Your task to perform on an android device: delete a single message in the gmail app Image 0: 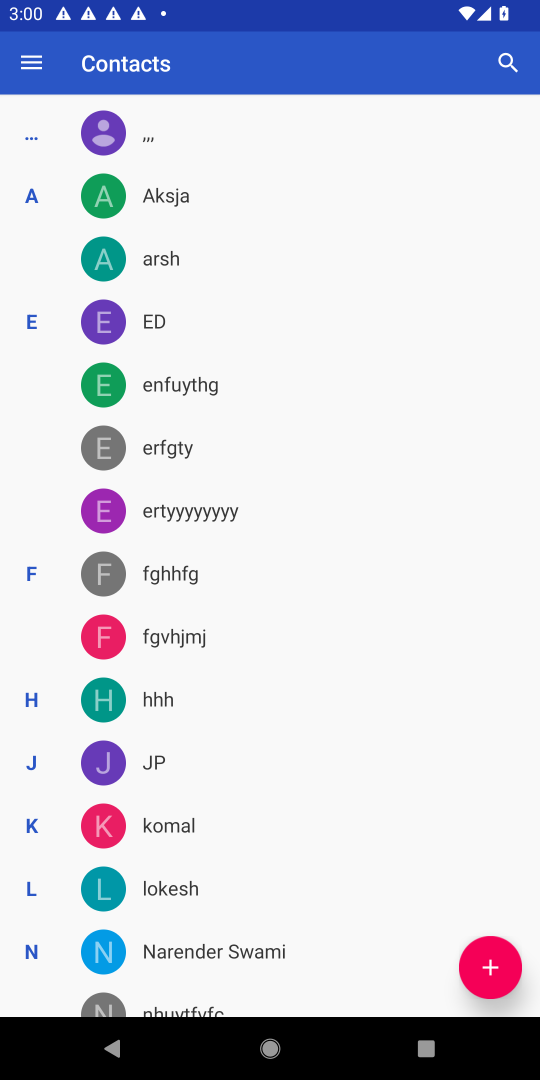
Step 0: press home button
Your task to perform on an android device: delete a single message in the gmail app Image 1: 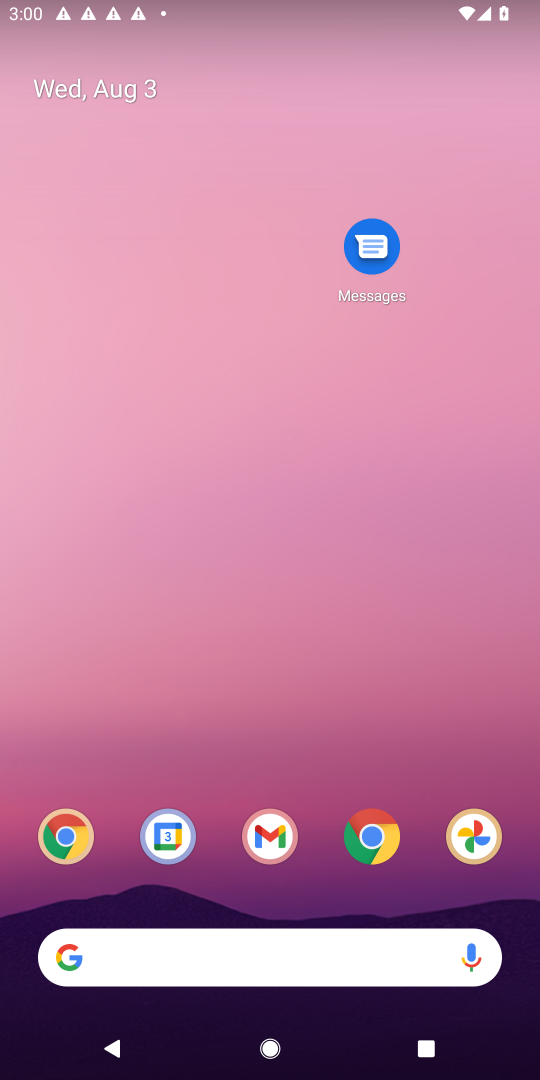
Step 1: click (265, 812)
Your task to perform on an android device: delete a single message in the gmail app Image 2: 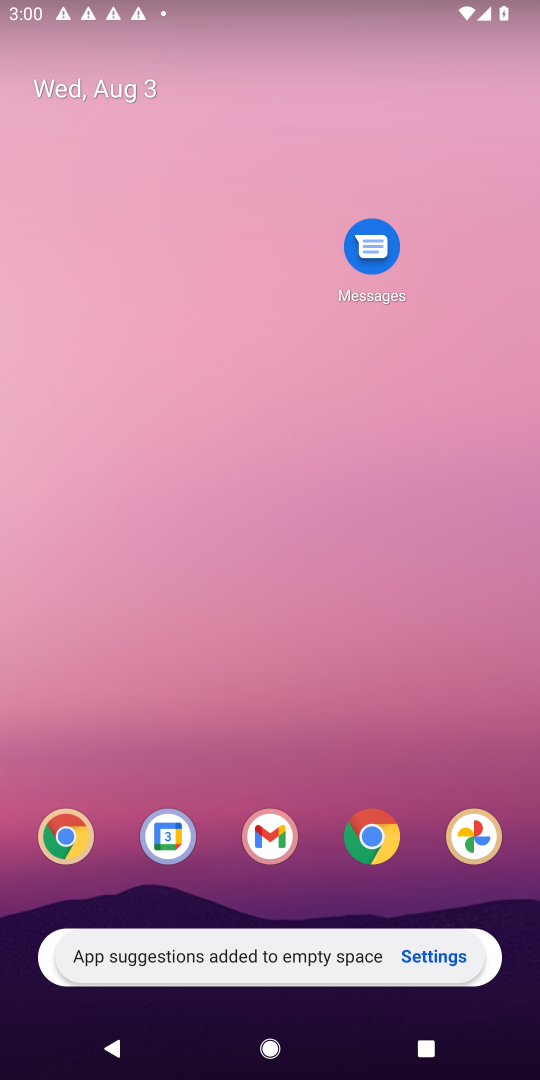
Step 2: click (280, 843)
Your task to perform on an android device: delete a single message in the gmail app Image 3: 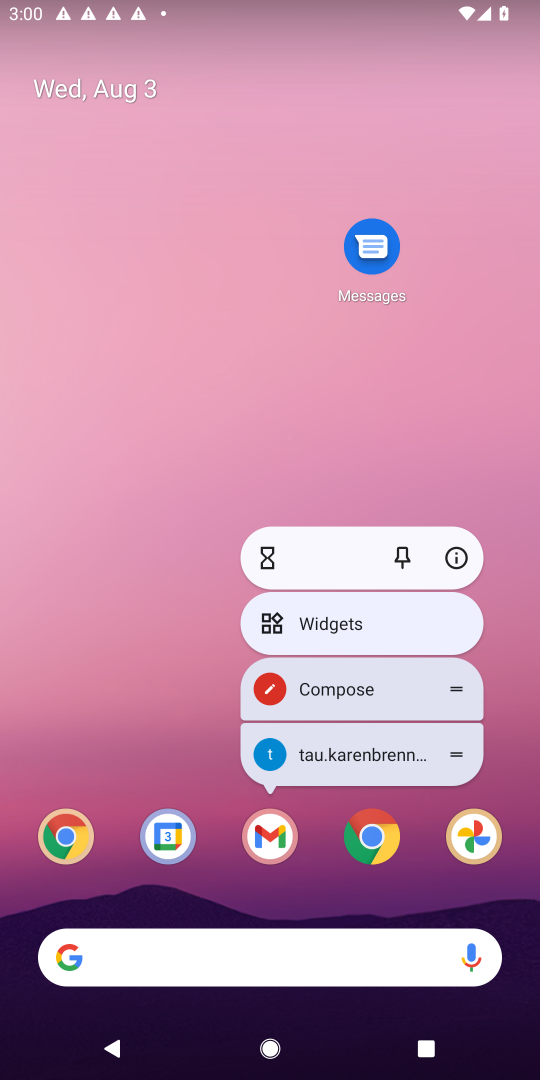
Step 3: click (276, 827)
Your task to perform on an android device: delete a single message in the gmail app Image 4: 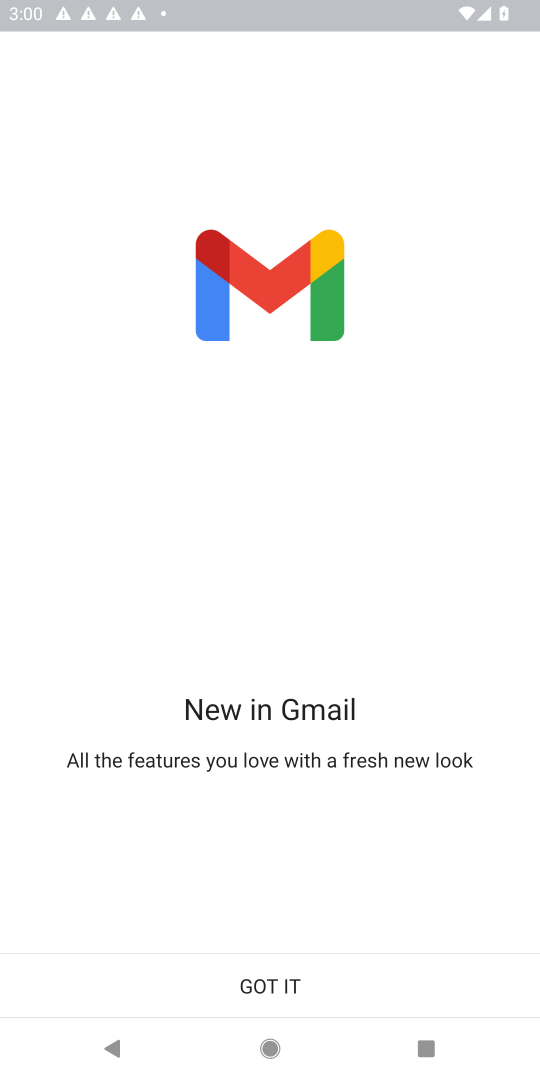
Step 4: click (295, 978)
Your task to perform on an android device: delete a single message in the gmail app Image 5: 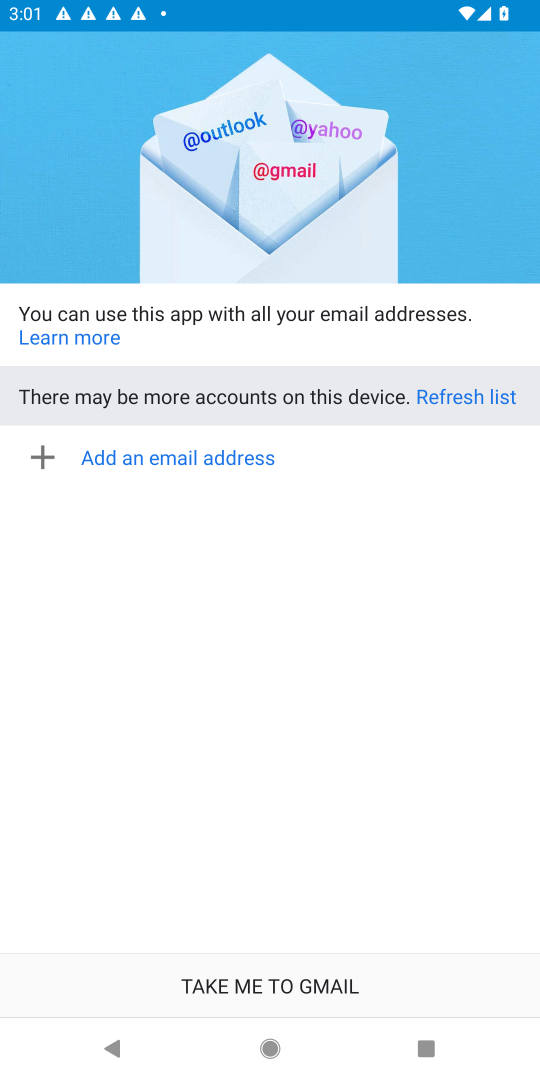
Step 5: click (303, 968)
Your task to perform on an android device: delete a single message in the gmail app Image 6: 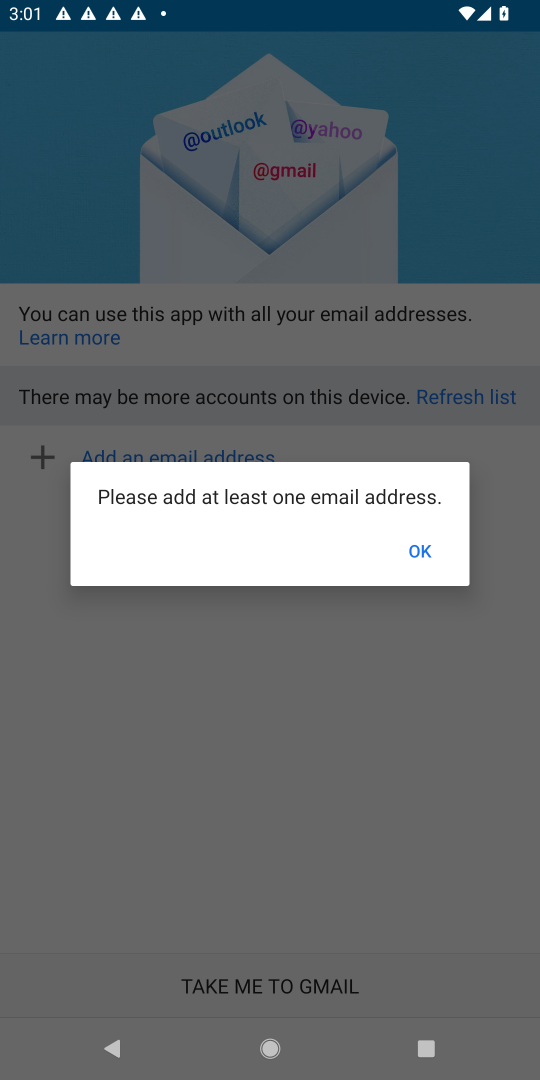
Step 6: click (419, 559)
Your task to perform on an android device: delete a single message in the gmail app Image 7: 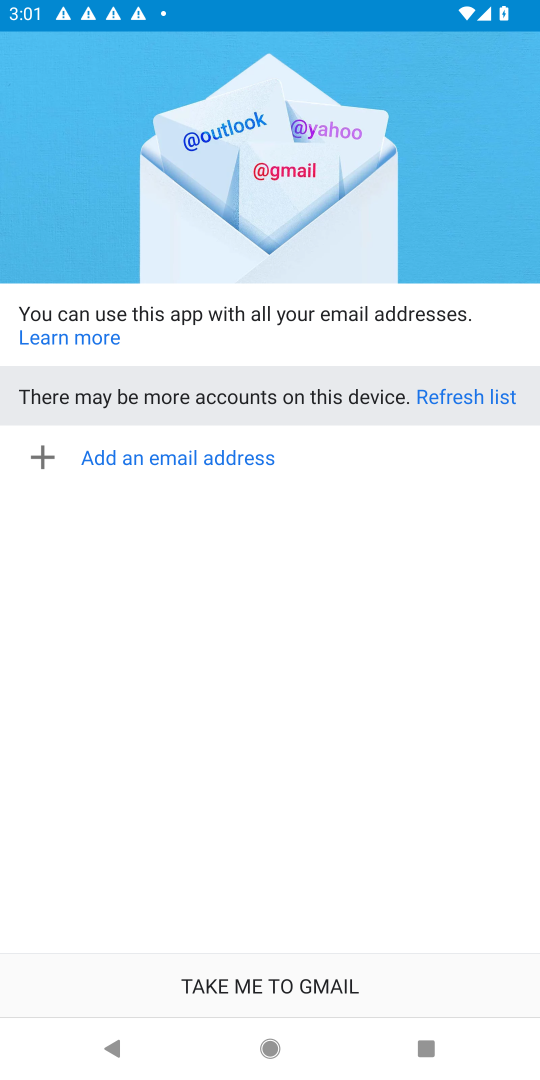
Step 7: click (251, 978)
Your task to perform on an android device: delete a single message in the gmail app Image 8: 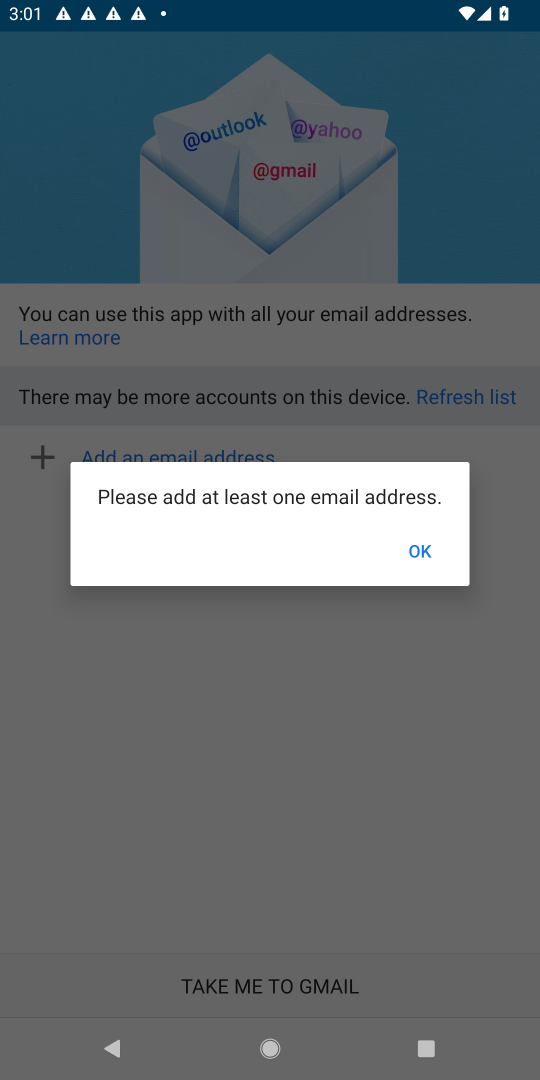
Step 8: click (432, 556)
Your task to perform on an android device: delete a single message in the gmail app Image 9: 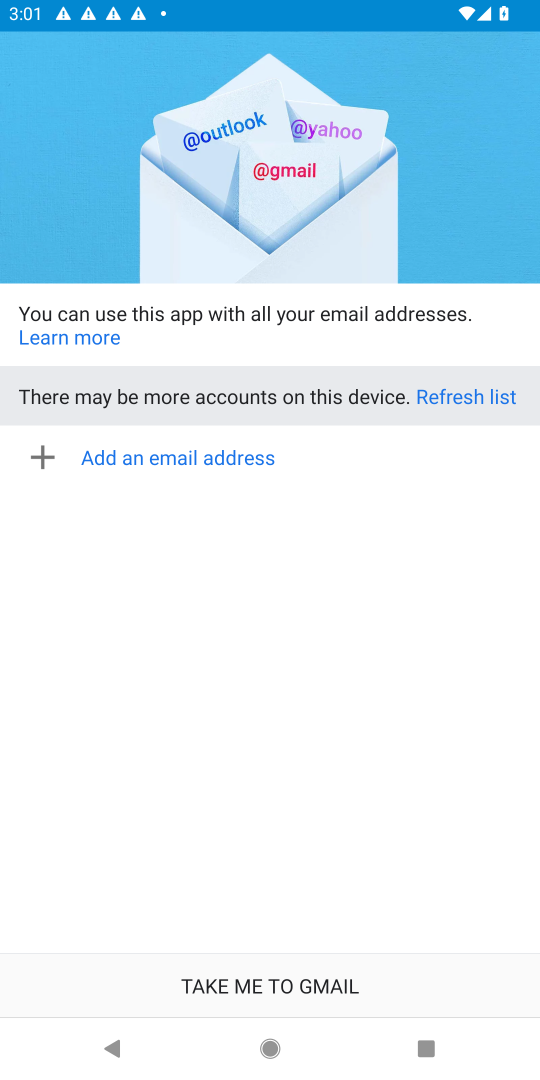
Step 9: task complete